Your task to perform on an android device: change keyboard looks Image 0: 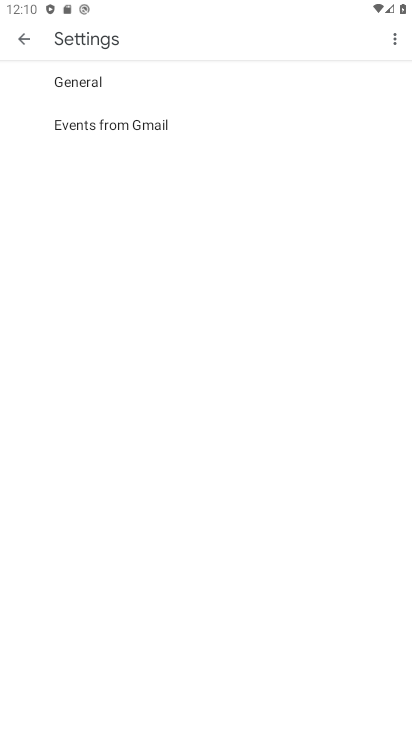
Step 0: press home button
Your task to perform on an android device: change keyboard looks Image 1: 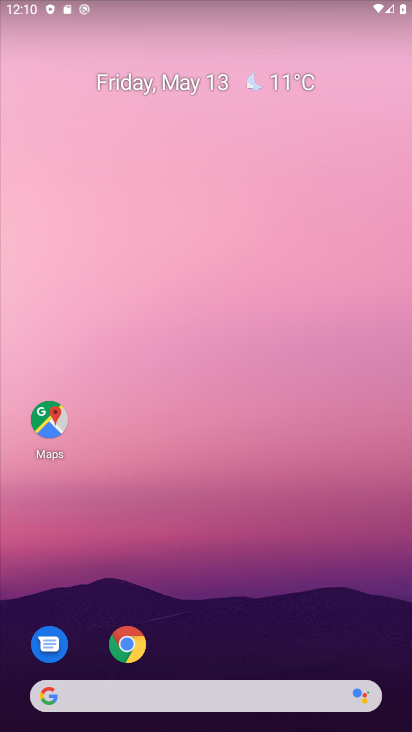
Step 1: drag from (217, 726) to (214, 166)
Your task to perform on an android device: change keyboard looks Image 2: 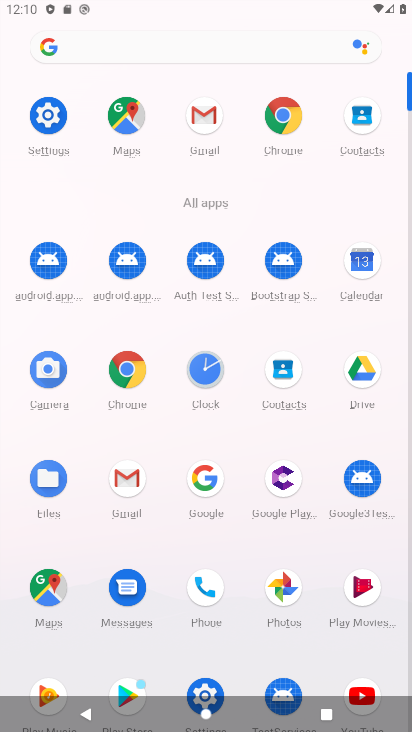
Step 2: drag from (213, 656) to (220, 202)
Your task to perform on an android device: change keyboard looks Image 3: 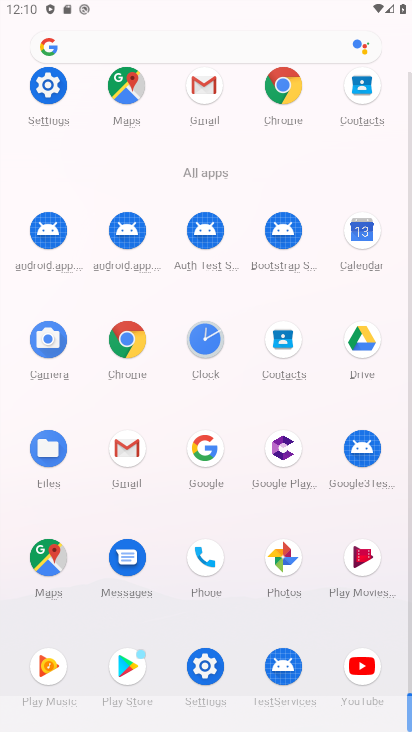
Step 3: click (215, 665)
Your task to perform on an android device: change keyboard looks Image 4: 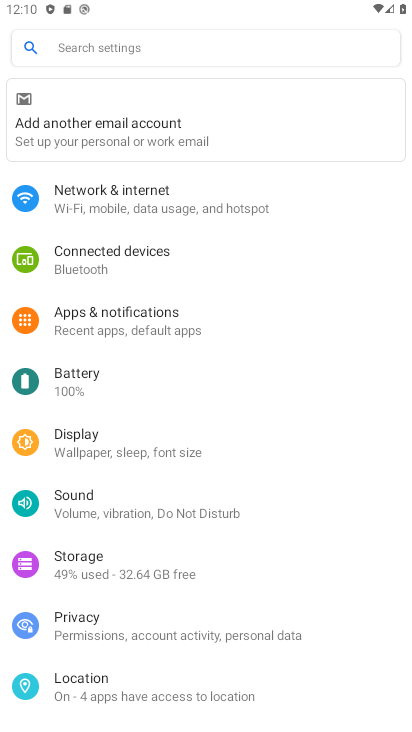
Step 4: drag from (166, 624) to (165, 163)
Your task to perform on an android device: change keyboard looks Image 5: 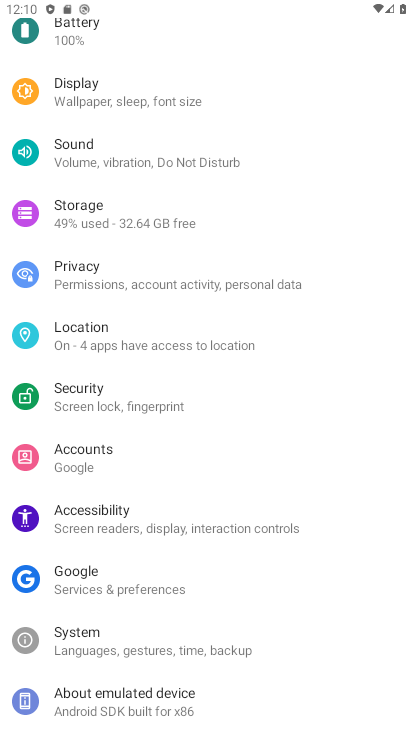
Step 5: drag from (178, 665) to (189, 242)
Your task to perform on an android device: change keyboard looks Image 6: 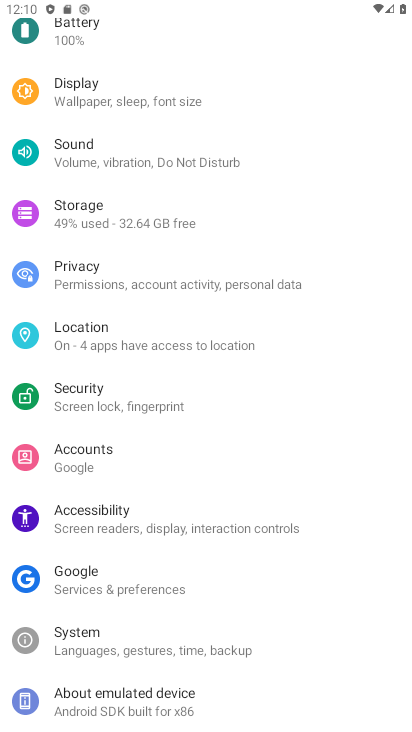
Step 6: click (80, 642)
Your task to perform on an android device: change keyboard looks Image 7: 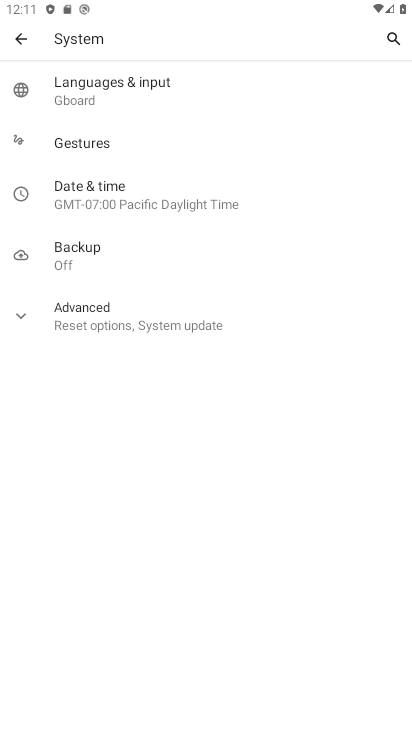
Step 7: click (76, 85)
Your task to perform on an android device: change keyboard looks Image 8: 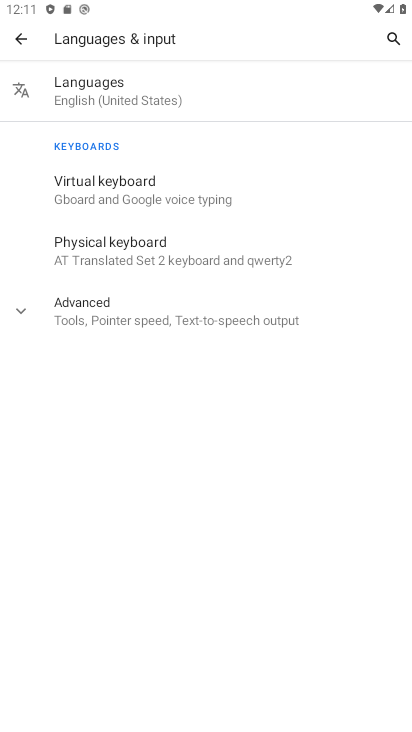
Step 8: click (91, 188)
Your task to perform on an android device: change keyboard looks Image 9: 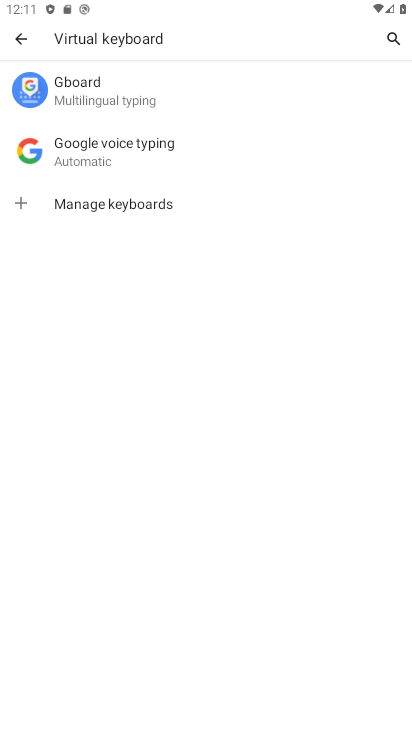
Step 9: click (88, 91)
Your task to perform on an android device: change keyboard looks Image 10: 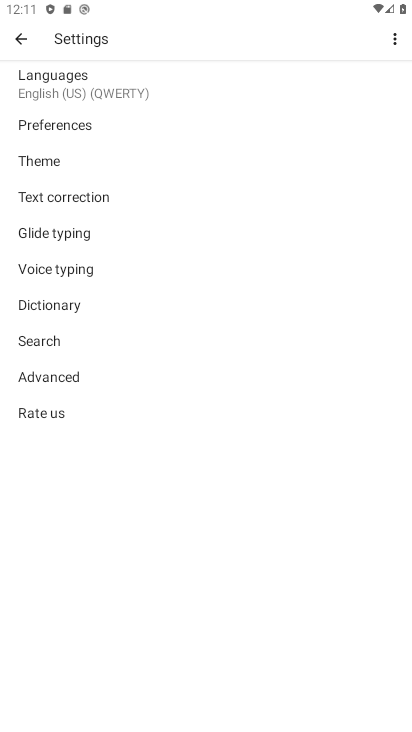
Step 10: click (29, 157)
Your task to perform on an android device: change keyboard looks Image 11: 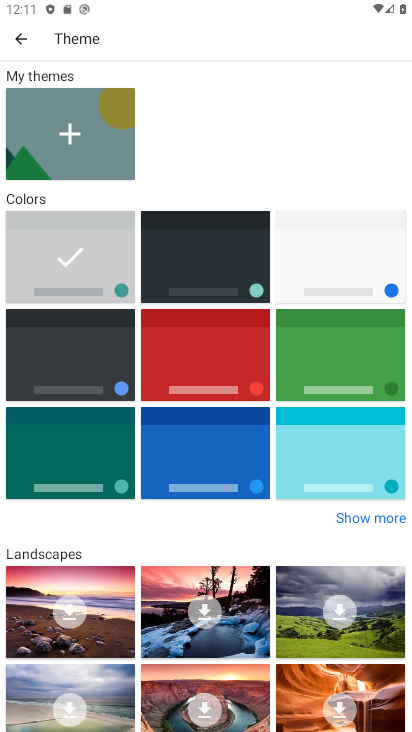
Step 11: click (194, 251)
Your task to perform on an android device: change keyboard looks Image 12: 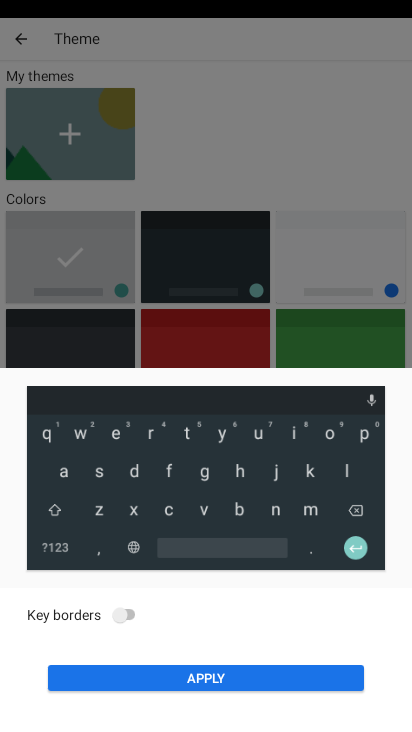
Step 12: click (131, 610)
Your task to perform on an android device: change keyboard looks Image 13: 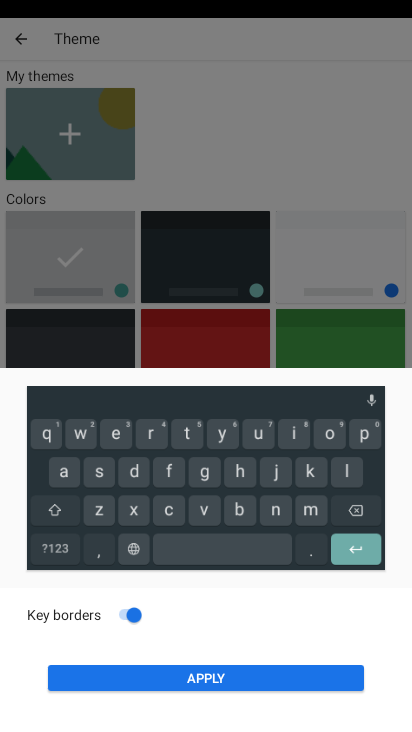
Step 13: click (220, 674)
Your task to perform on an android device: change keyboard looks Image 14: 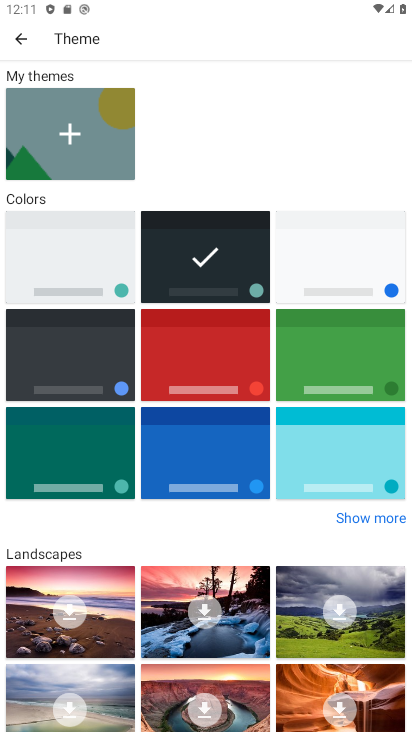
Step 14: task complete